Your task to perform on an android device: see creations saved in the google photos Image 0: 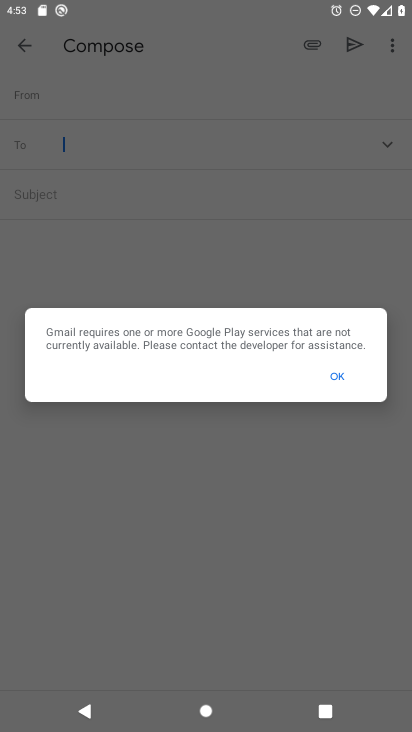
Step 0: press home button
Your task to perform on an android device: see creations saved in the google photos Image 1: 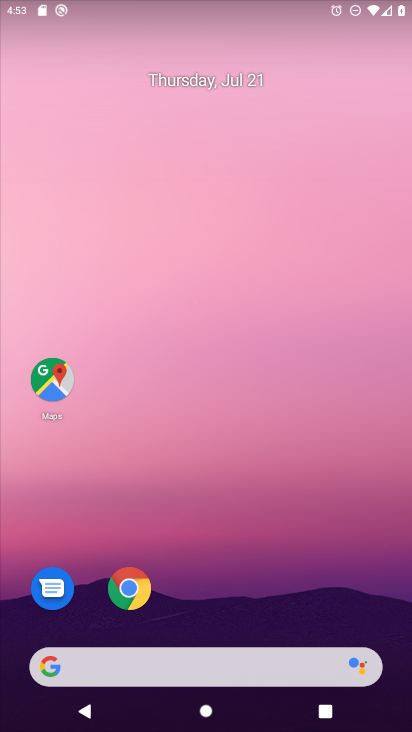
Step 1: drag from (246, 433) to (225, 257)
Your task to perform on an android device: see creations saved in the google photos Image 2: 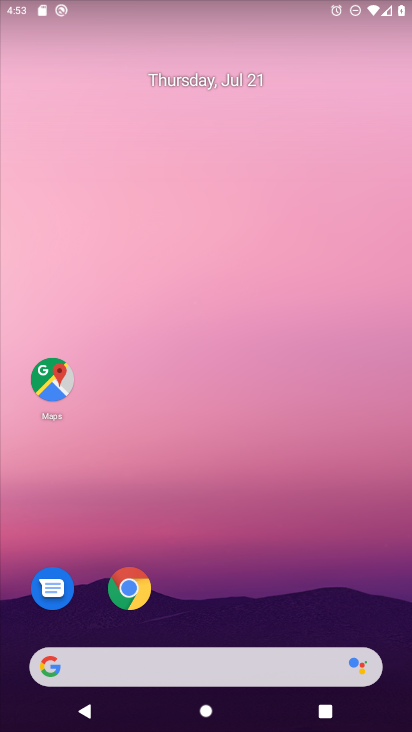
Step 2: drag from (272, 623) to (209, 228)
Your task to perform on an android device: see creations saved in the google photos Image 3: 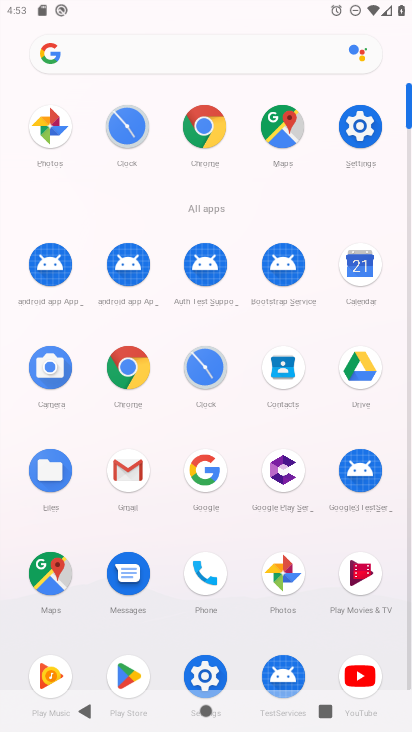
Step 3: click (47, 120)
Your task to perform on an android device: see creations saved in the google photos Image 4: 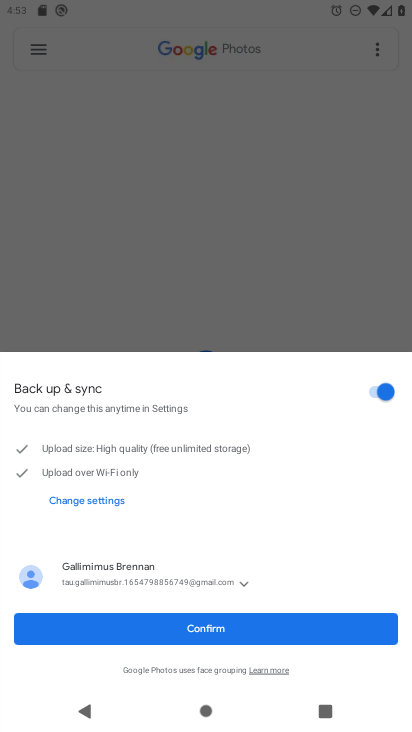
Step 4: click (196, 629)
Your task to perform on an android device: see creations saved in the google photos Image 5: 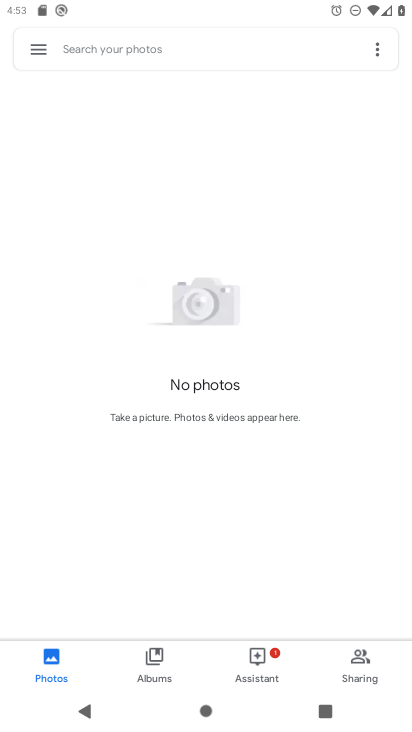
Step 5: click (156, 46)
Your task to perform on an android device: see creations saved in the google photos Image 6: 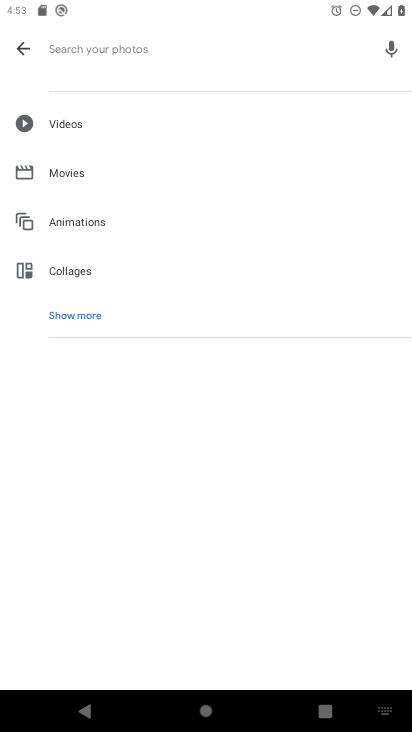
Step 6: click (97, 305)
Your task to perform on an android device: see creations saved in the google photos Image 7: 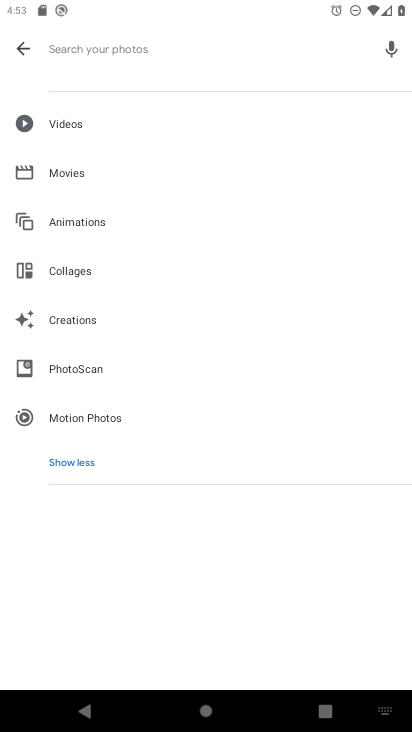
Step 7: click (89, 312)
Your task to perform on an android device: see creations saved in the google photos Image 8: 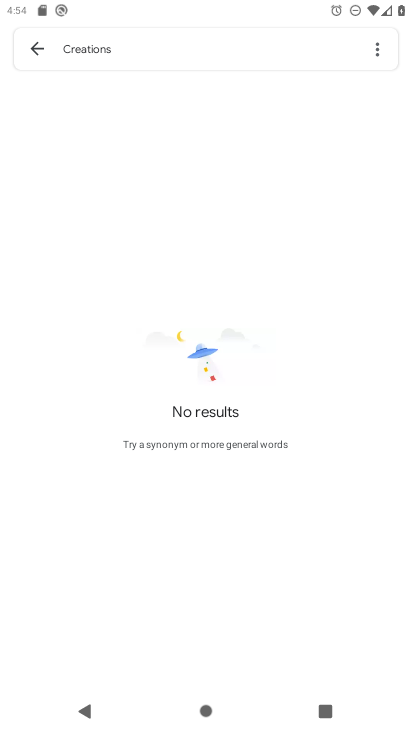
Step 8: task complete